Your task to perform on an android device: turn on airplane mode Image 0: 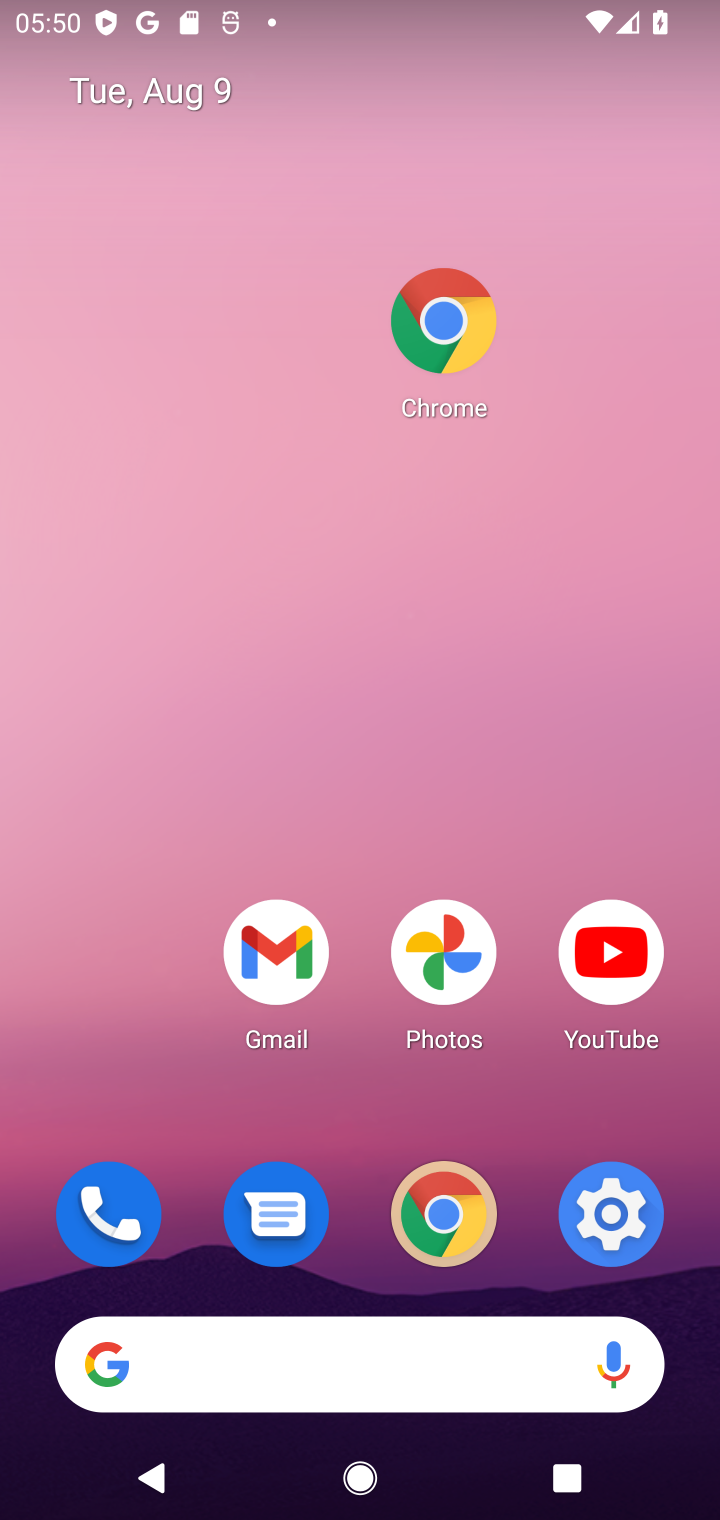
Step 0: drag from (503, 1248) to (310, 235)
Your task to perform on an android device: turn on airplane mode Image 1: 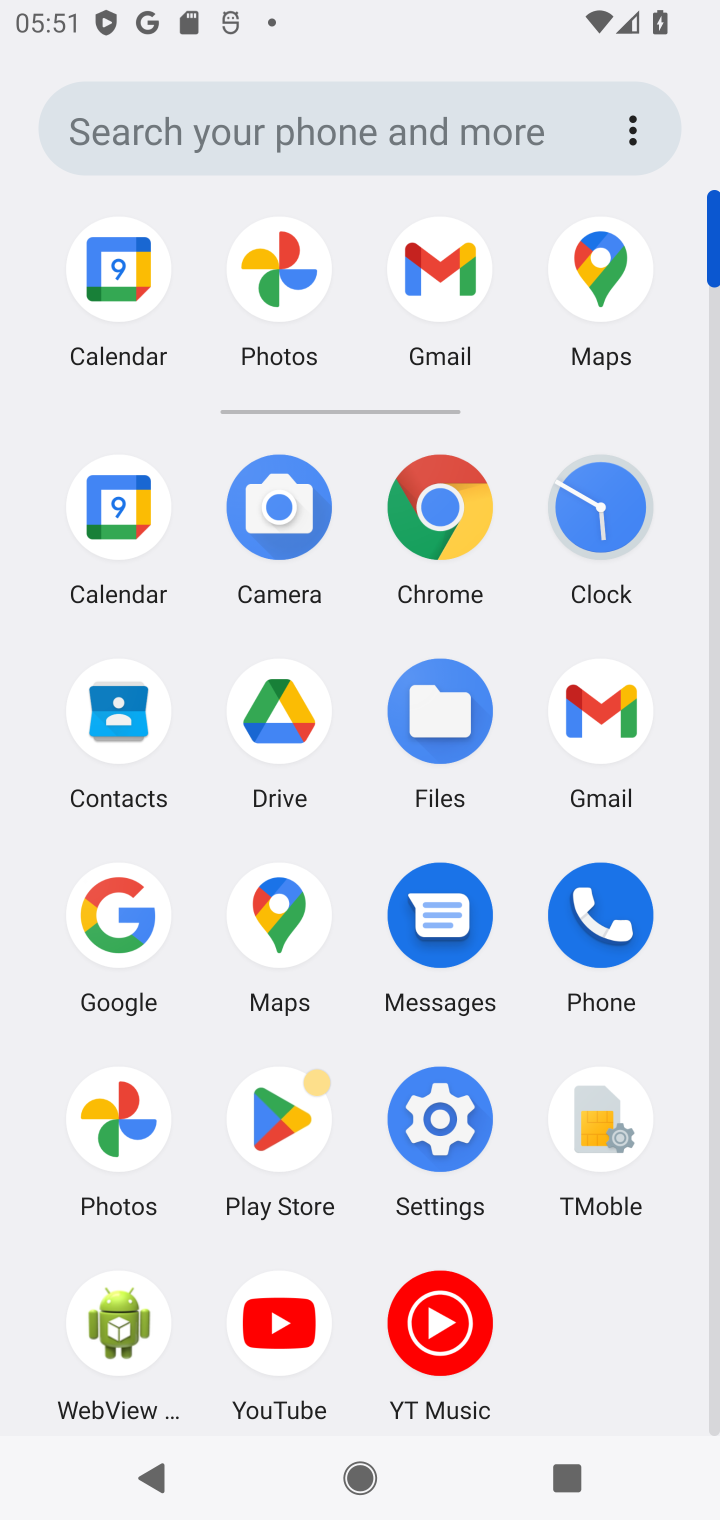
Step 1: click (427, 1126)
Your task to perform on an android device: turn on airplane mode Image 2: 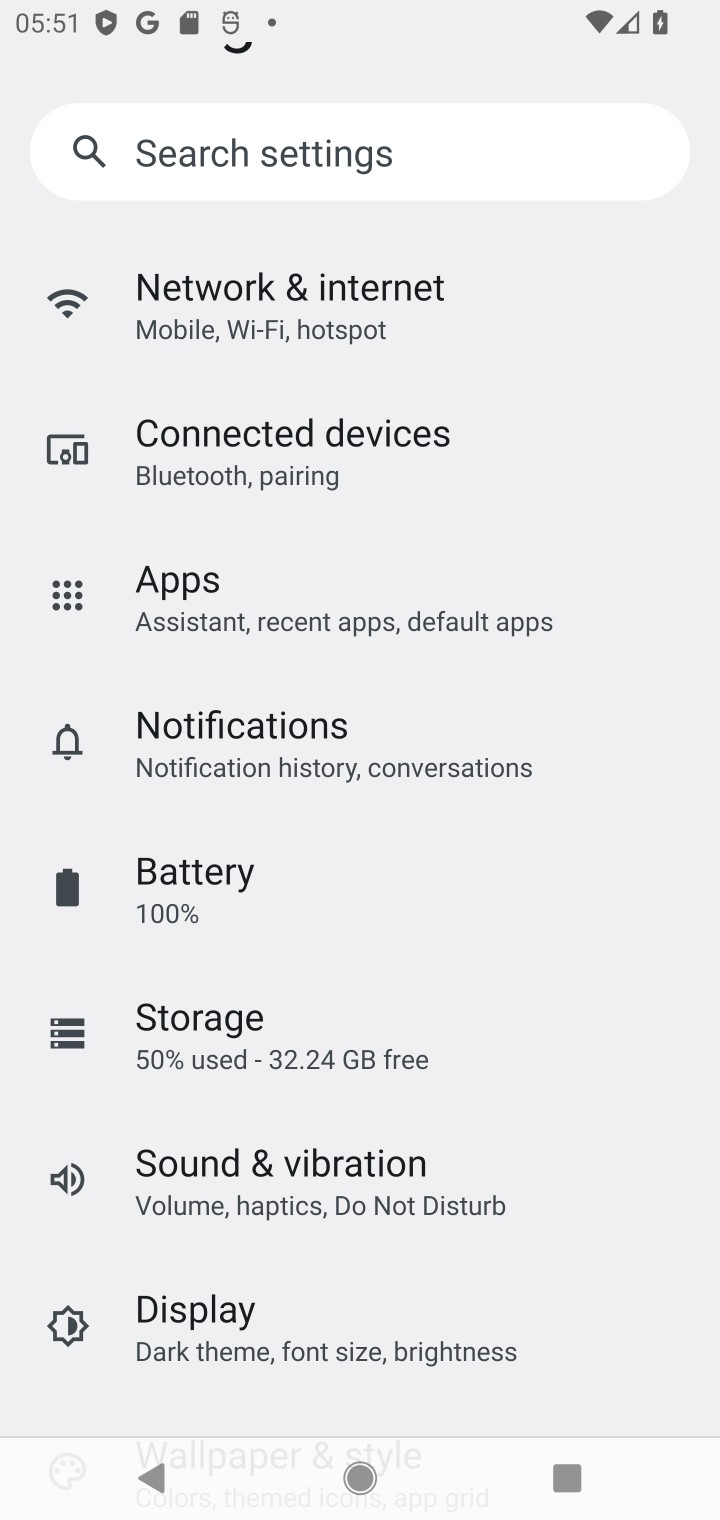
Step 2: click (309, 323)
Your task to perform on an android device: turn on airplane mode Image 3: 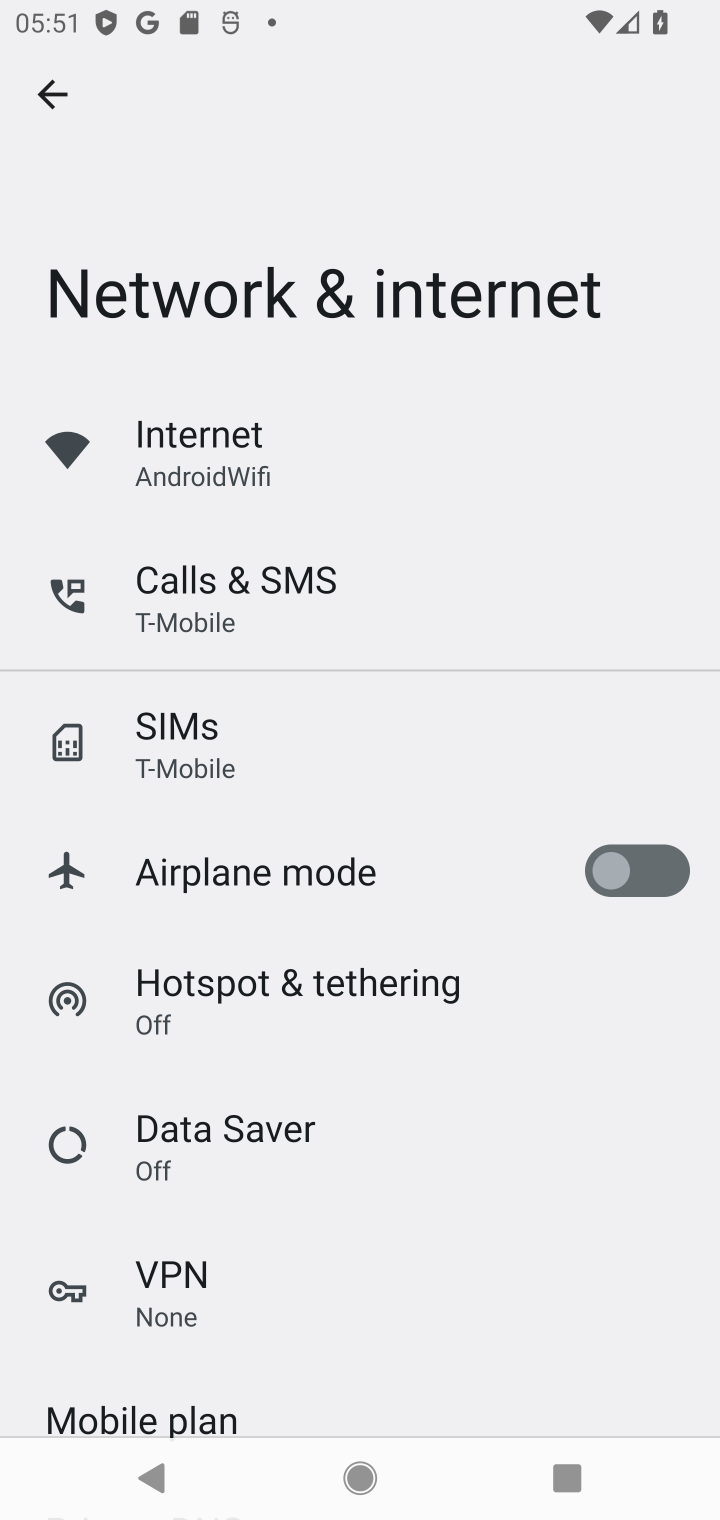
Step 3: click (616, 875)
Your task to perform on an android device: turn on airplane mode Image 4: 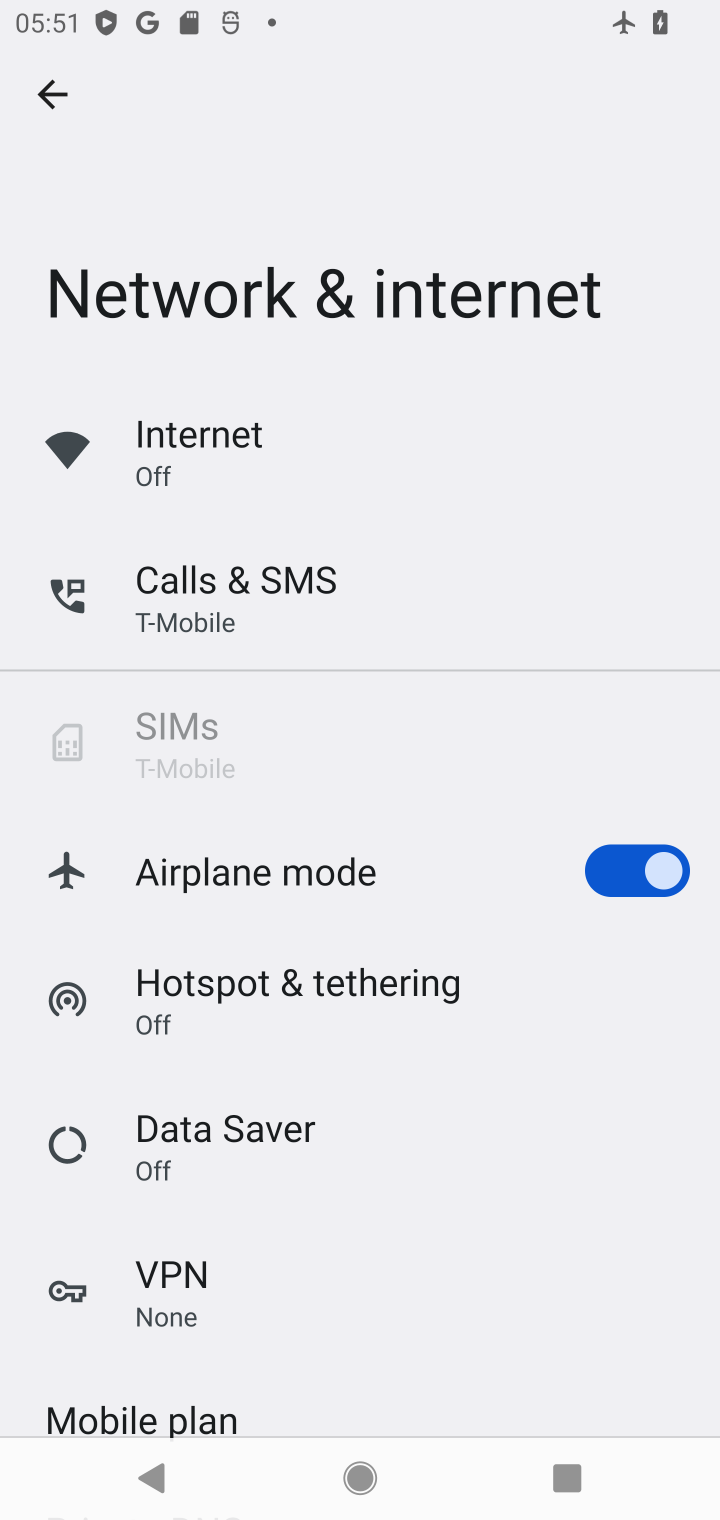
Step 4: task complete